Your task to perform on an android device: Go to Android settings Image 0: 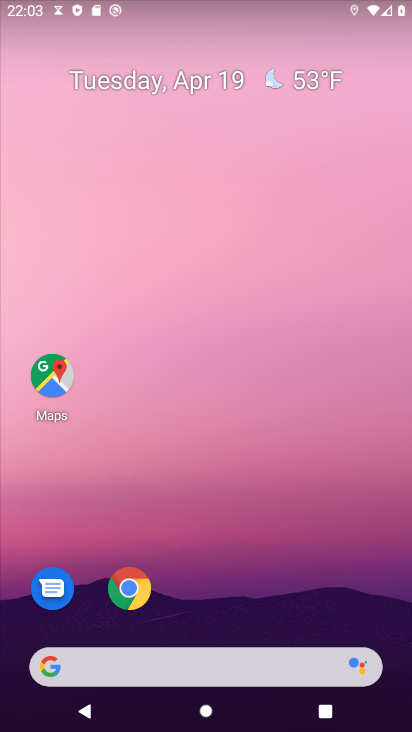
Step 0: drag from (228, 630) to (299, 68)
Your task to perform on an android device: Go to Android settings Image 1: 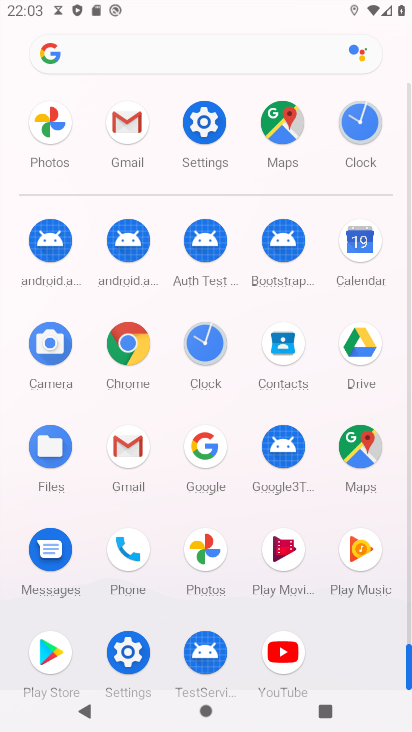
Step 1: click (203, 124)
Your task to perform on an android device: Go to Android settings Image 2: 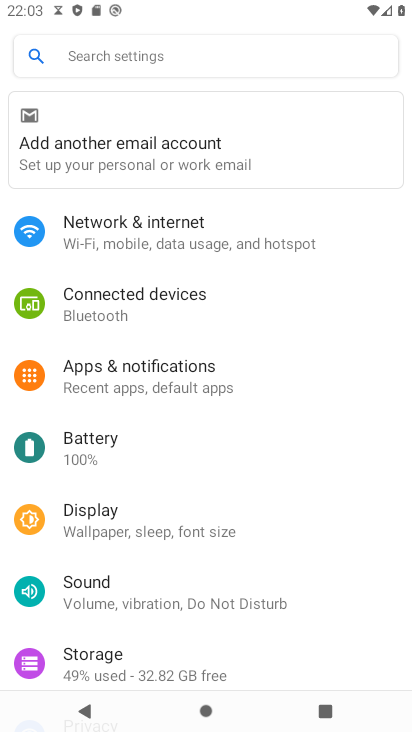
Step 2: drag from (140, 477) to (192, 389)
Your task to perform on an android device: Go to Android settings Image 3: 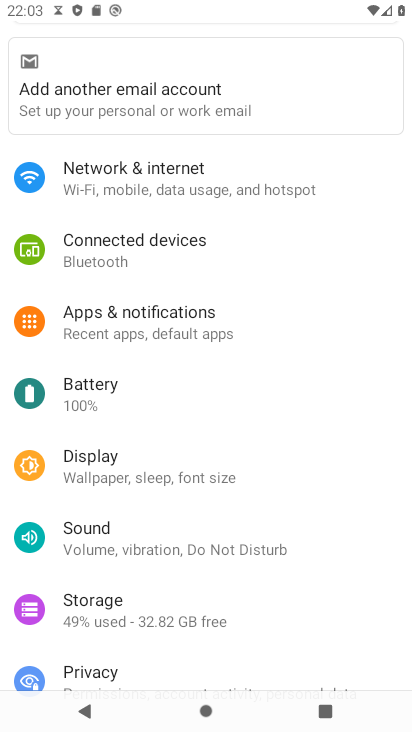
Step 3: drag from (169, 508) to (189, 446)
Your task to perform on an android device: Go to Android settings Image 4: 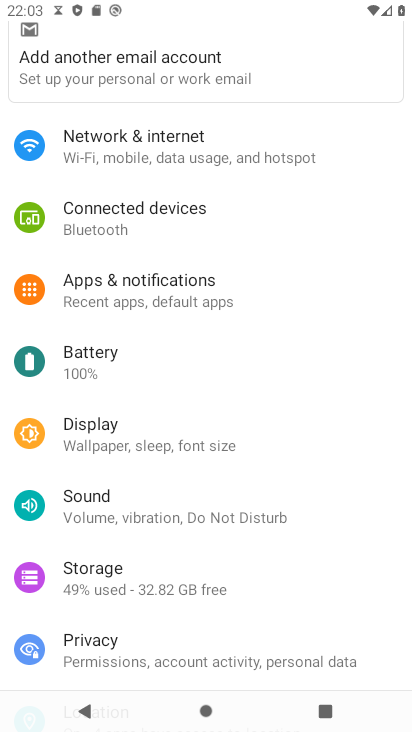
Step 4: drag from (152, 558) to (202, 467)
Your task to perform on an android device: Go to Android settings Image 5: 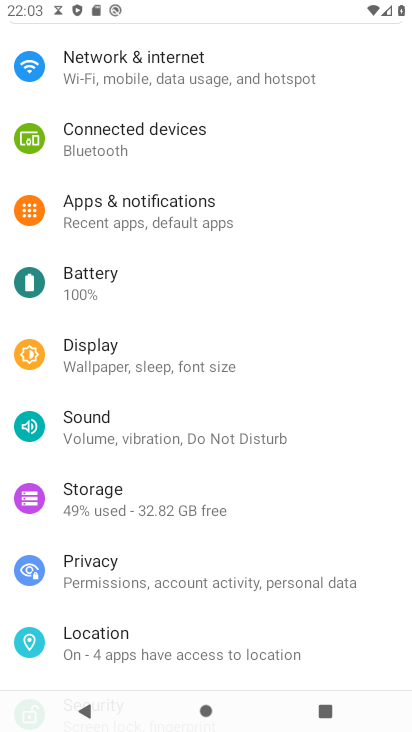
Step 5: drag from (177, 556) to (205, 498)
Your task to perform on an android device: Go to Android settings Image 6: 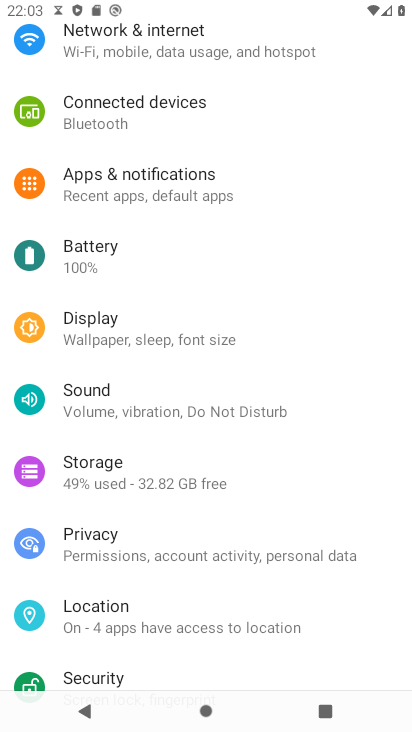
Step 6: drag from (162, 581) to (201, 491)
Your task to perform on an android device: Go to Android settings Image 7: 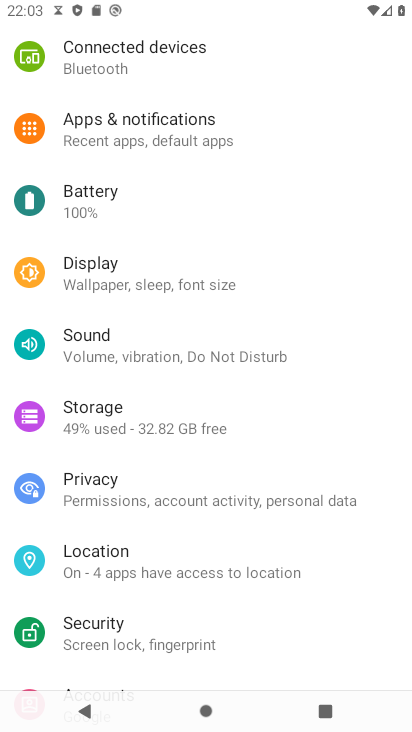
Step 7: drag from (159, 586) to (207, 509)
Your task to perform on an android device: Go to Android settings Image 8: 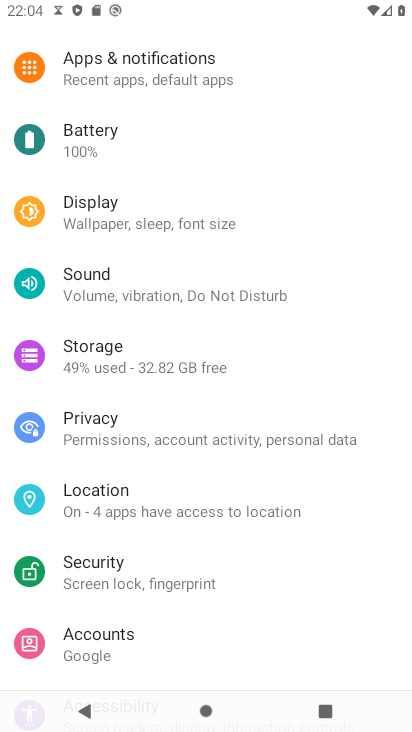
Step 8: drag from (166, 564) to (170, 468)
Your task to perform on an android device: Go to Android settings Image 9: 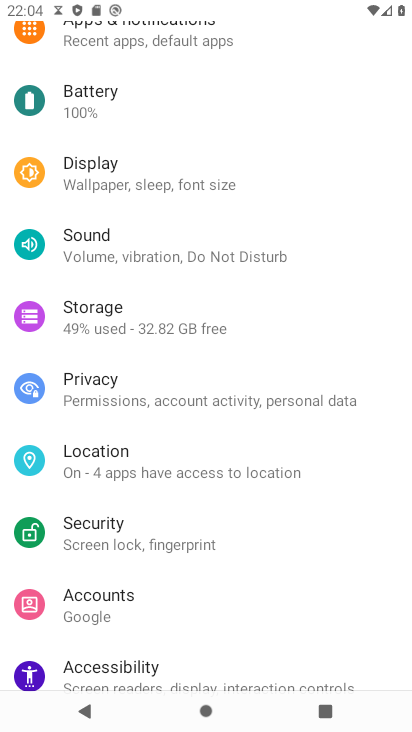
Step 9: drag from (138, 580) to (165, 455)
Your task to perform on an android device: Go to Android settings Image 10: 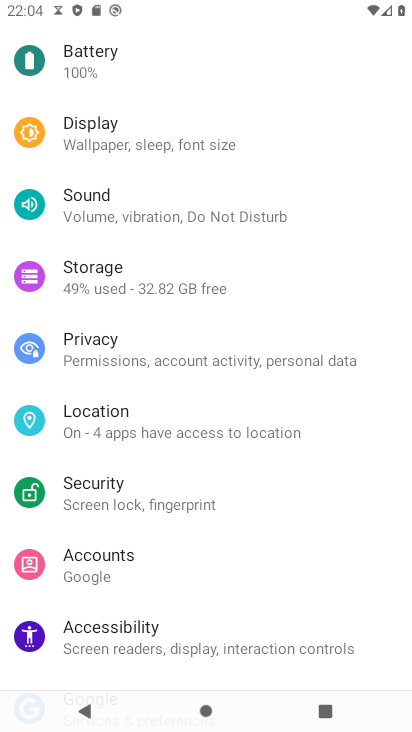
Step 10: drag from (165, 548) to (183, 452)
Your task to perform on an android device: Go to Android settings Image 11: 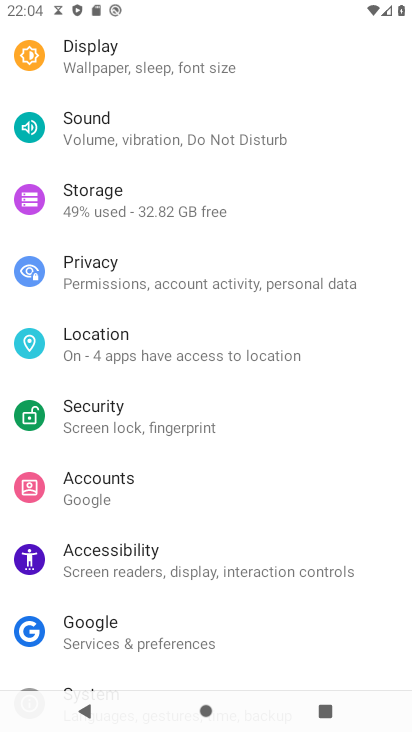
Step 11: drag from (106, 532) to (152, 394)
Your task to perform on an android device: Go to Android settings Image 12: 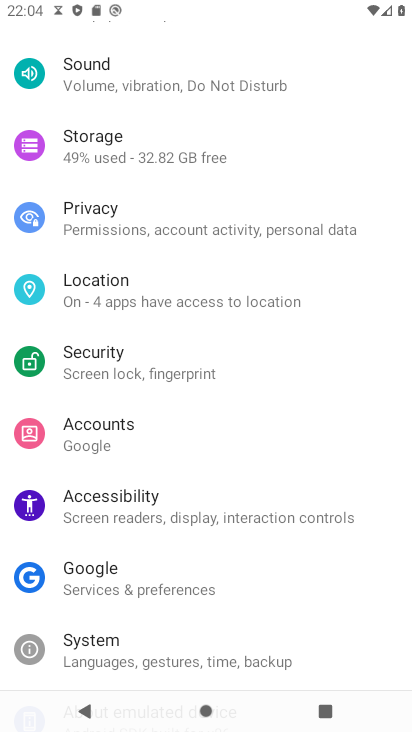
Step 12: drag from (133, 617) to (195, 424)
Your task to perform on an android device: Go to Android settings Image 13: 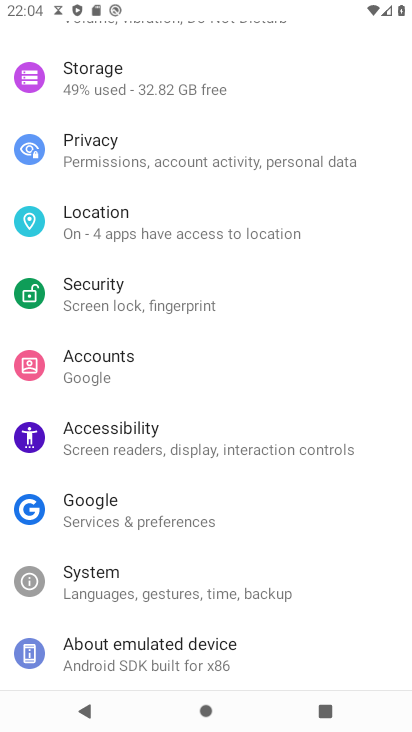
Step 13: click (153, 648)
Your task to perform on an android device: Go to Android settings Image 14: 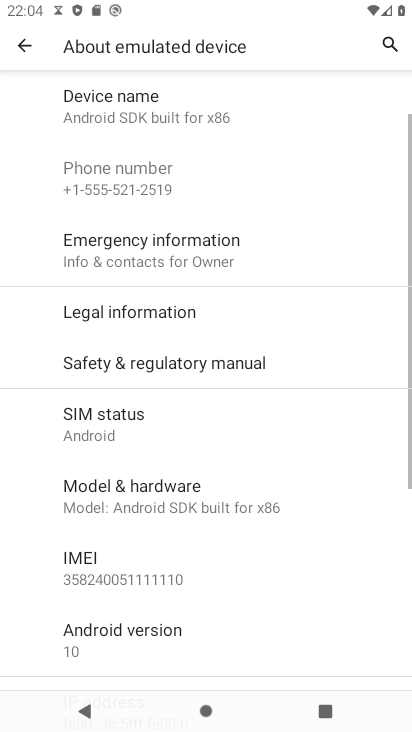
Step 14: drag from (170, 494) to (203, 415)
Your task to perform on an android device: Go to Android settings Image 15: 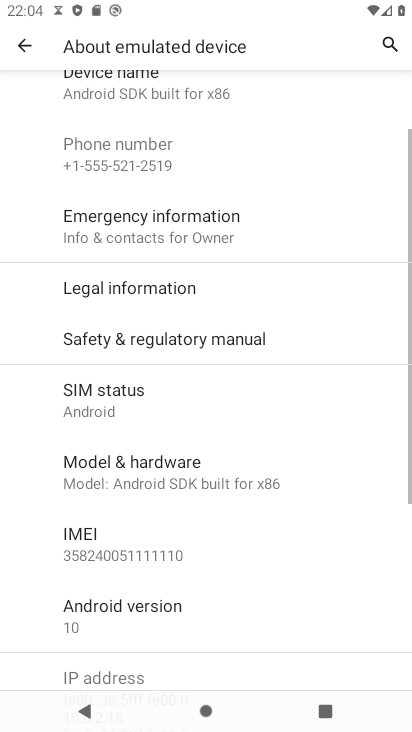
Step 15: click (123, 593)
Your task to perform on an android device: Go to Android settings Image 16: 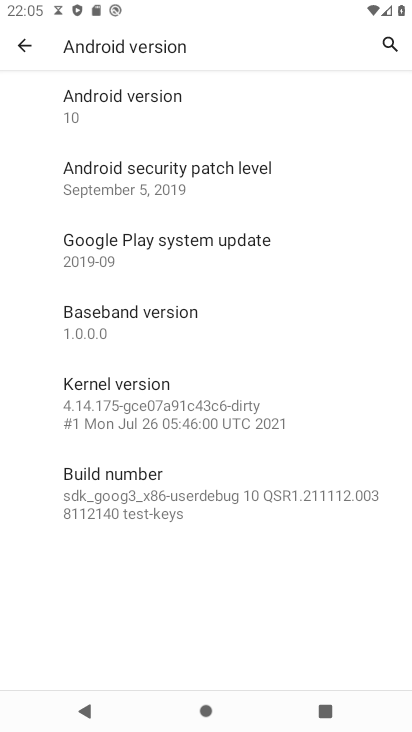
Step 16: task complete